Your task to perform on an android device: Open Google Maps and go to "Timeline" Image 0: 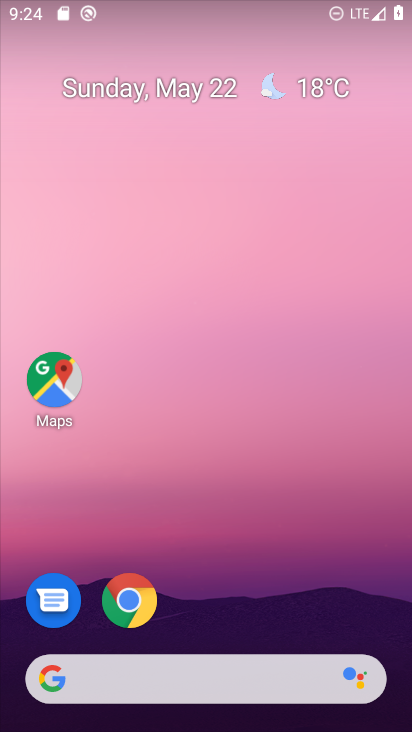
Step 0: drag from (338, 613) to (268, 79)
Your task to perform on an android device: Open Google Maps and go to "Timeline" Image 1: 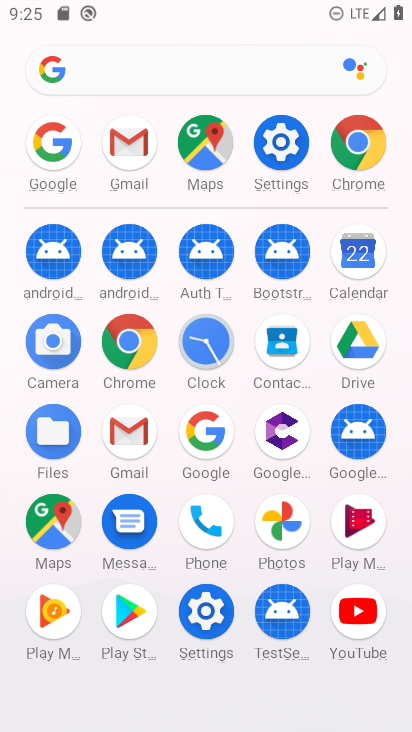
Step 1: click (188, 143)
Your task to perform on an android device: Open Google Maps and go to "Timeline" Image 2: 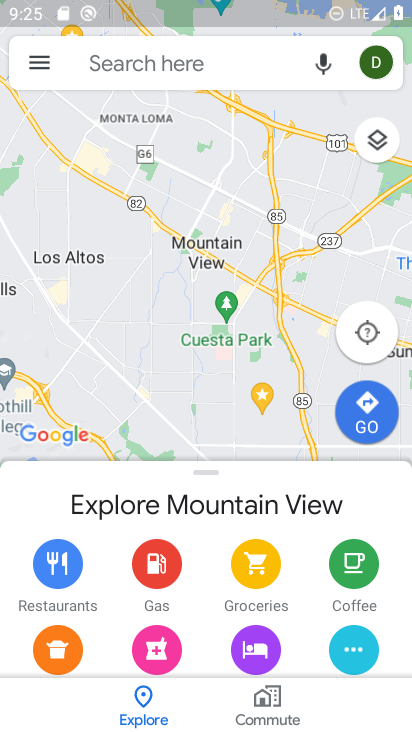
Step 2: click (29, 68)
Your task to perform on an android device: Open Google Maps and go to "Timeline" Image 3: 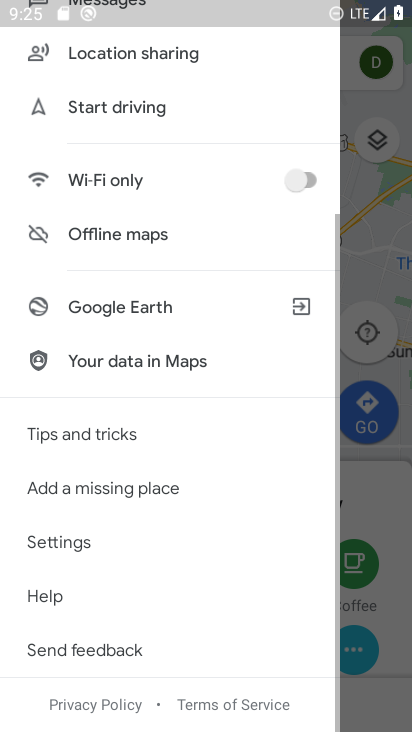
Step 3: drag from (98, 142) to (149, 689)
Your task to perform on an android device: Open Google Maps and go to "Timeline" Image 4: 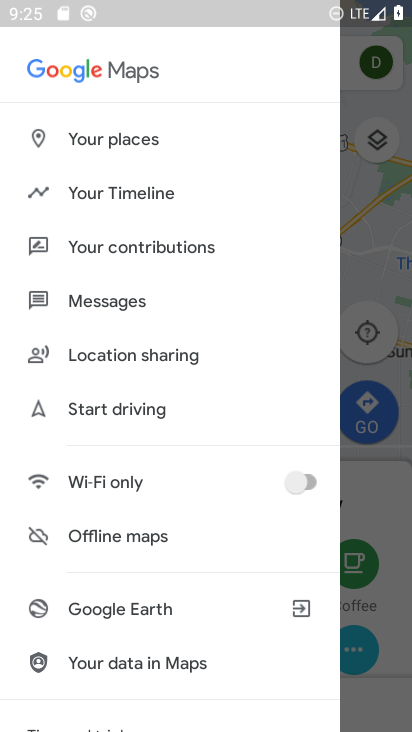
Step 4: click (185, 187)
Your task to perform on an android device: Open Google Maps and go to "Timeline" Image 5: 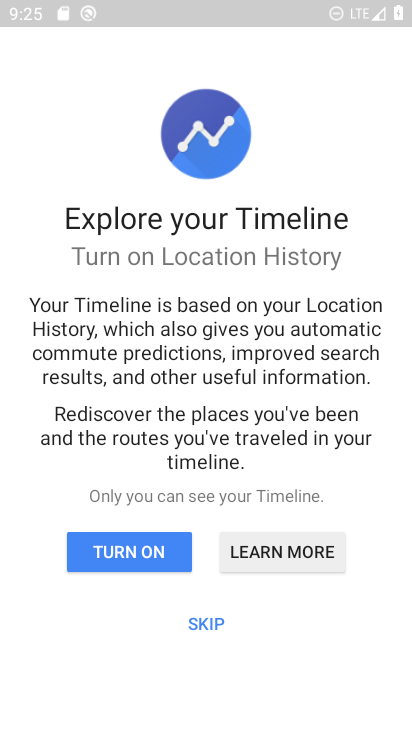
Step 5: task complete